Your task to perform on an android device: turn on bluetooth scan Image 0: 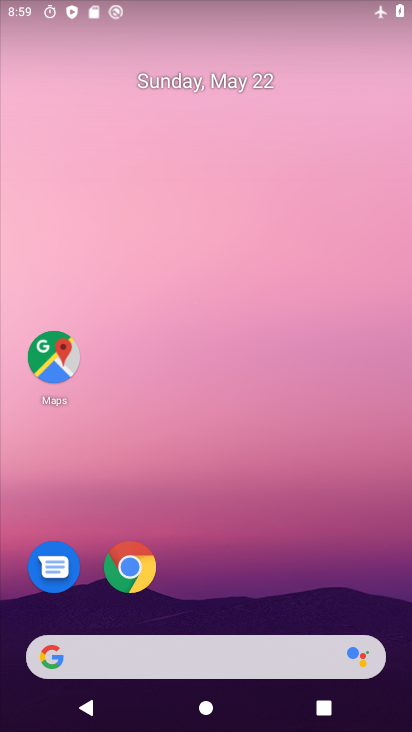
Step 0: drag from (212, 616) to (228, 4)
Your task to perform on an android device: turn on bluetooth scan Image 1: 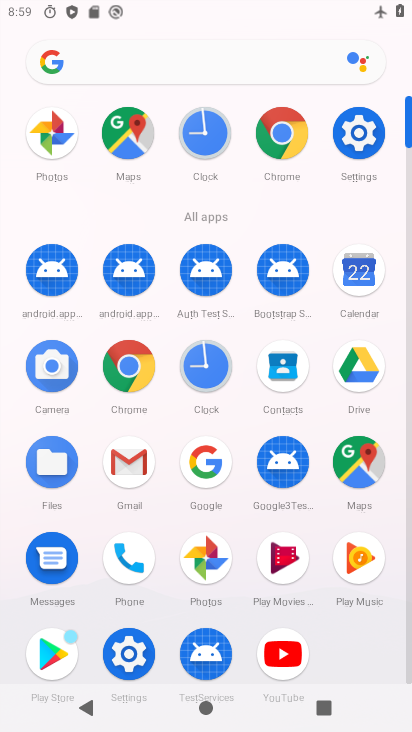
Step 1: click (364, 151)
Your task to perform on an android device: turn on bluetooth scan Image 2: 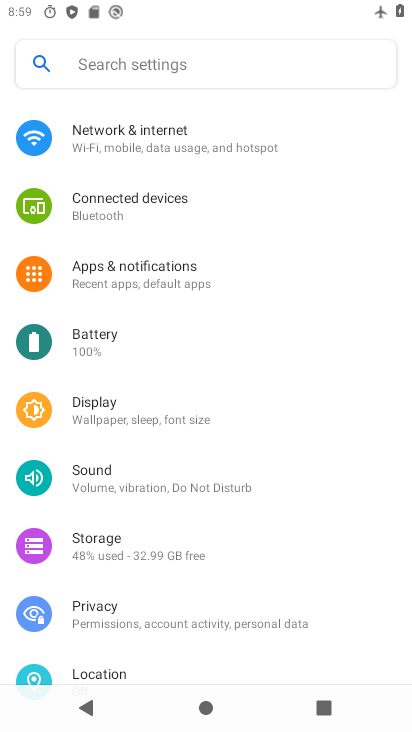
Step 2: click (116, 673)
Your task to perform on an android device: turn on bluetooth scan Image 3: 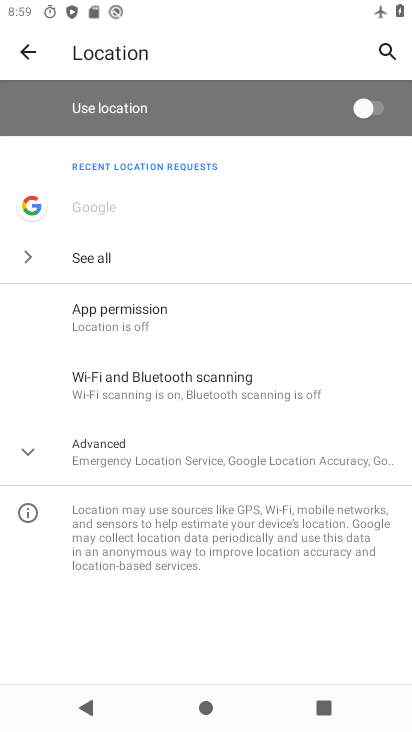
Step 3: click (174, 397)
Your task to perform on an android device: turn on bluetooth scan Image 4: 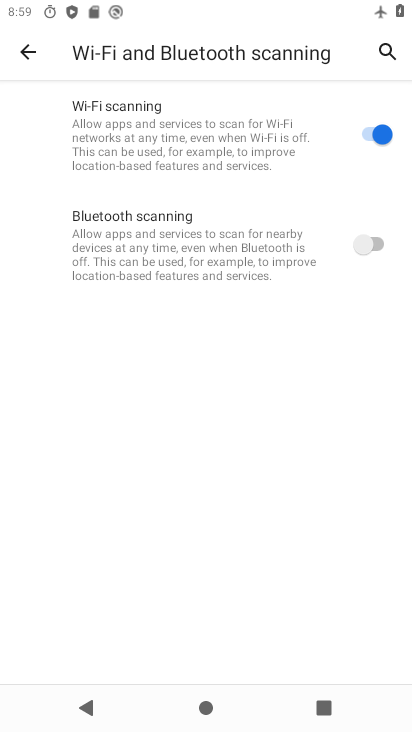
Step 4: click (387, 249)
Your task to perform on an android device: turn on bluetooth scan Image 5: 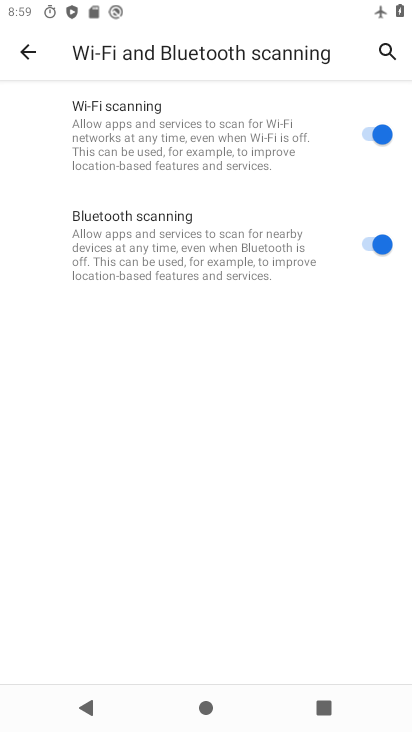
Step 5: task complete